Your task to perform on an android device: check out phone information Image 0: 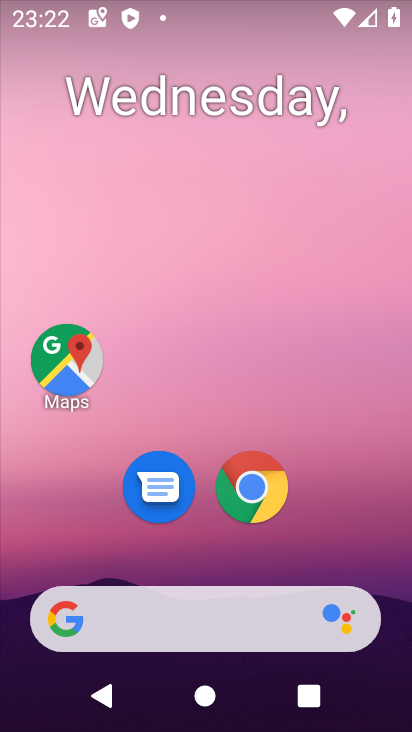
Step 0: drag from (375, 556) to (364, 12)
Your task to perform on an android device: check out phone information Image 1: 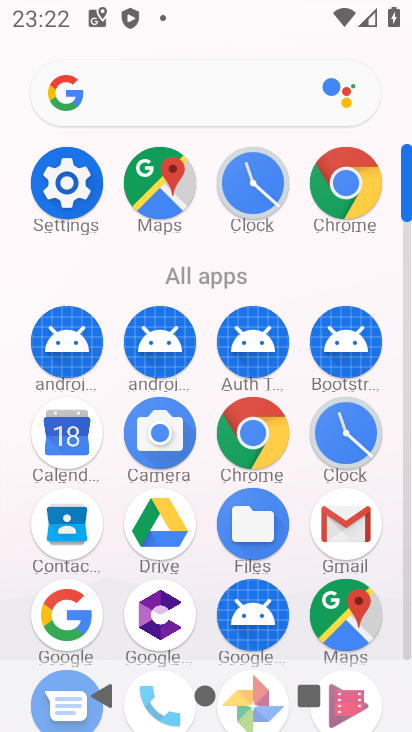
Step 1: click (70, 190)
Your task to perform on an android device: check out phone information Image 2: 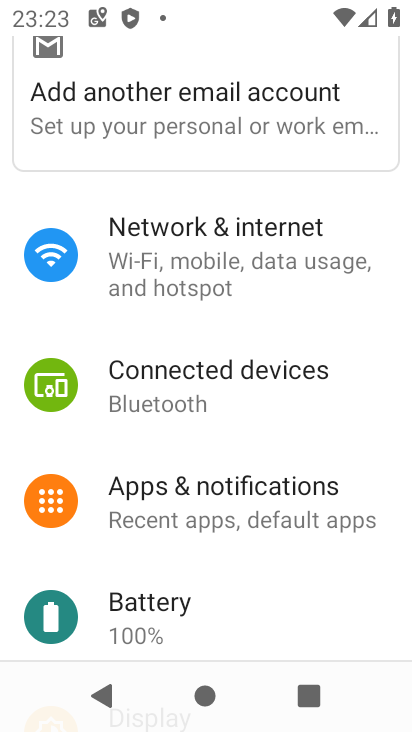
Step 2: drag from (290, 559) to (256, 18)
Your task to perform on an android device: check out phone information Image 3: 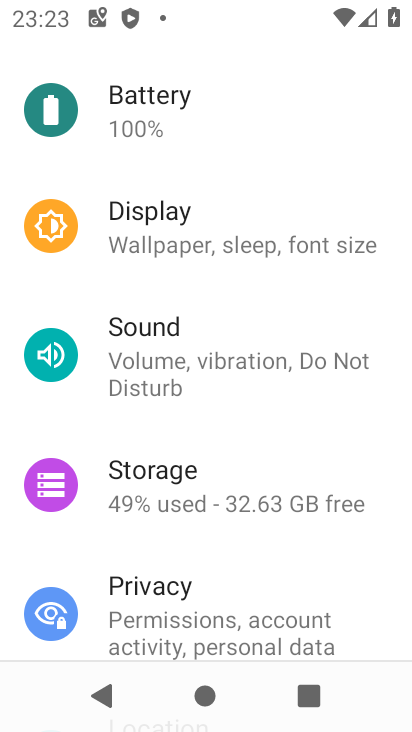
Step 3: drag from (316, 488) to (263, 44)
Your task to perform on an android device: check out phone information Image 4: 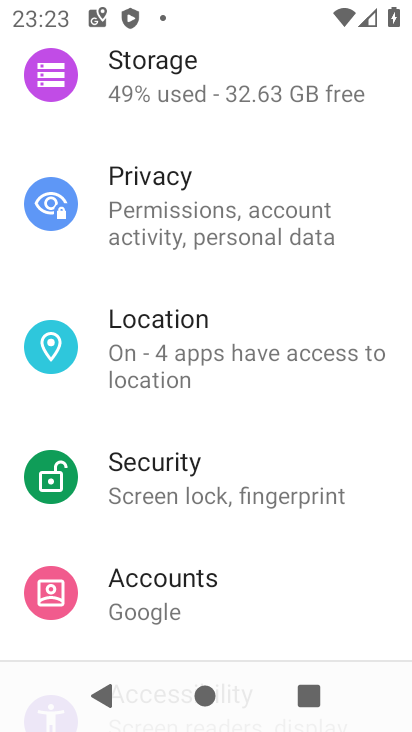
Step 4: drag from (285, 542) to (247, 31)
Your task to perform on an android device: check out phone information Image 5: 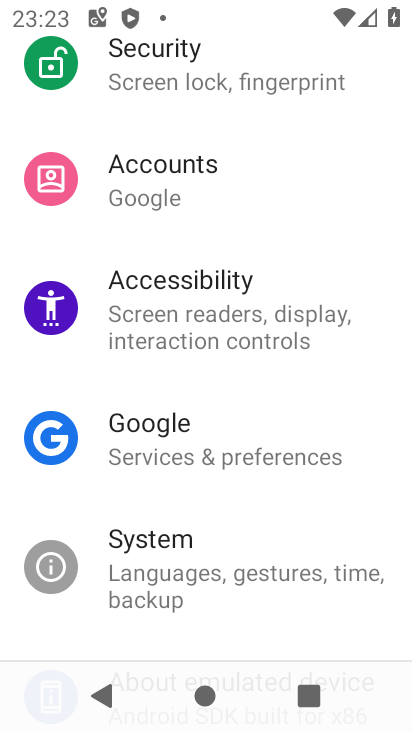
Step 5: drag from (277, 512) to (234, 38)
Your task to perform on an android device: check out phone information Image 6: 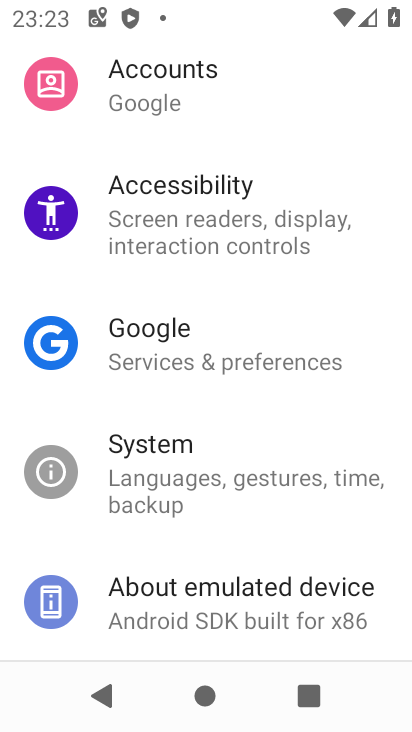
Step 6: click (225, 596)
Your task to perform on an android device: check out phone information Image 7: 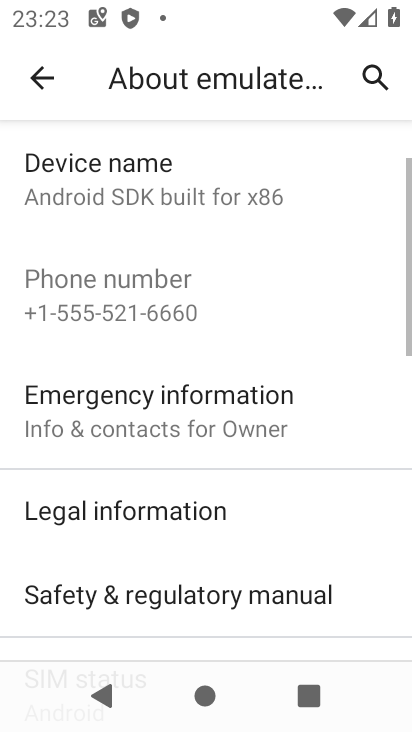
Step 7: task complete